Your task to perform on an android device: star an email in the gmail app Image 0: 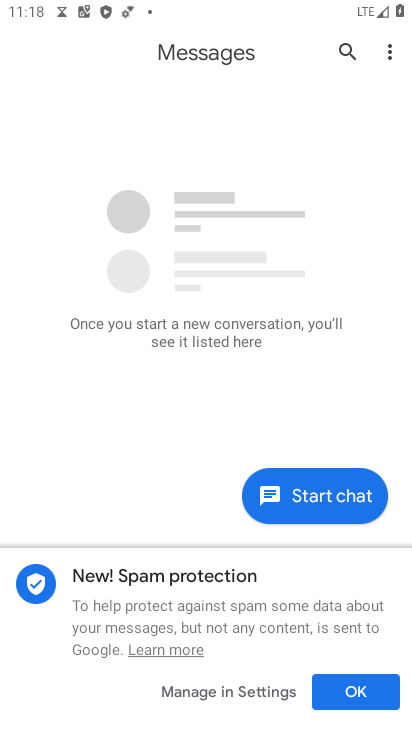
Step 0: press back button
Your task to perform on an android device: star an email in the gmail app Image 1: 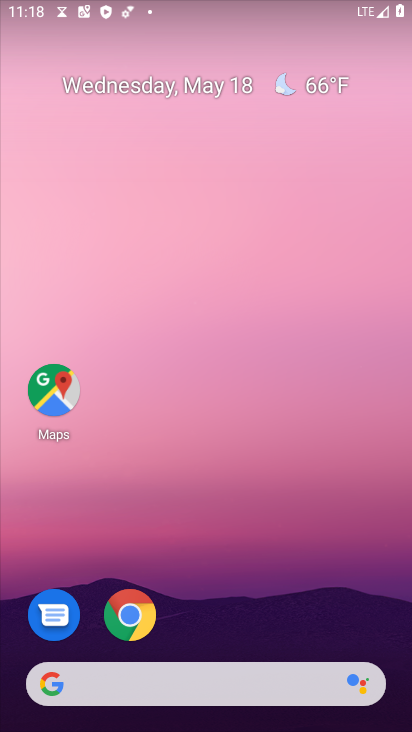
Step 1: drag from (266, 535) to (181, 4)
Your task to perform on an android device: star an email in the gmail app Image 2: 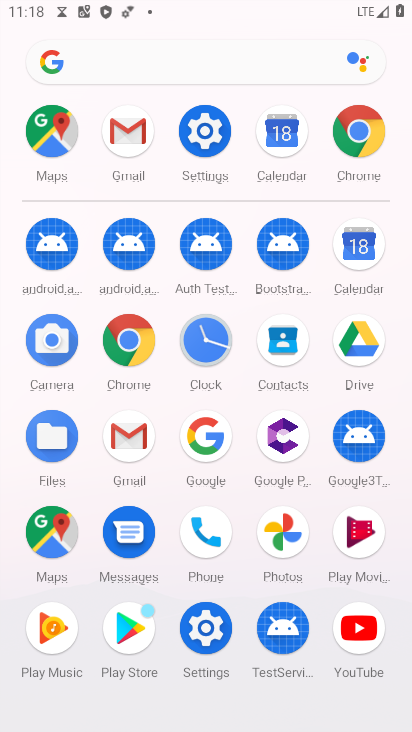
Step 2: drag from (0, 528) to (0, 233)
Your task to perform on an android device: star an email in the gmail app Image 3: 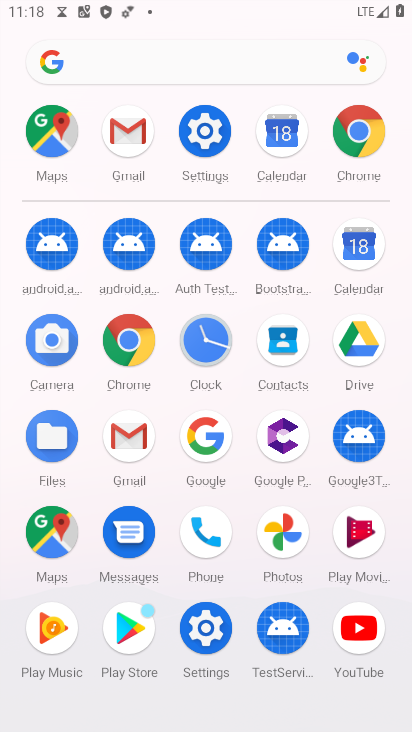
Step 3: click (124, 434)
Your task to perform on an android device: star an email in the gmail app Image 4: 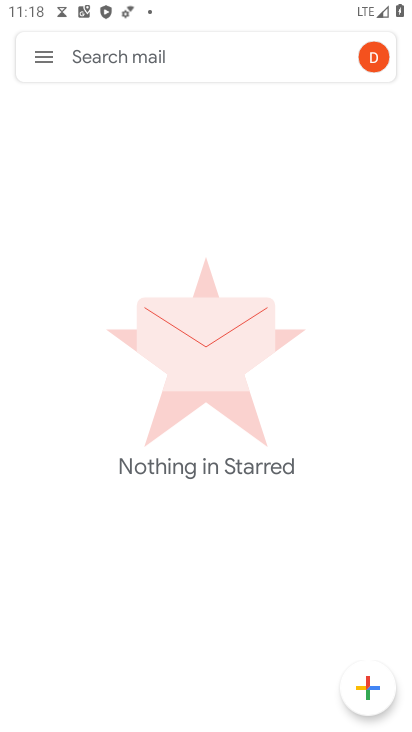
Step 4: click (30, 43)
Your task to perform on an android device: star an email in the gmail app Image 5: 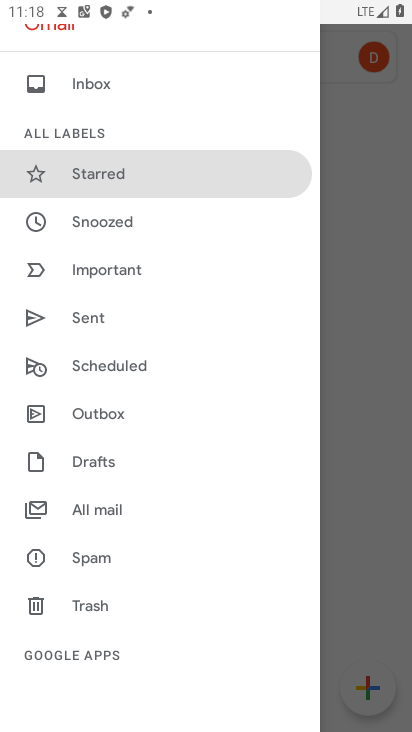
Step 5: click (157, 172)
Your task to perform on an android device: star an email in the gmail app Image 6: 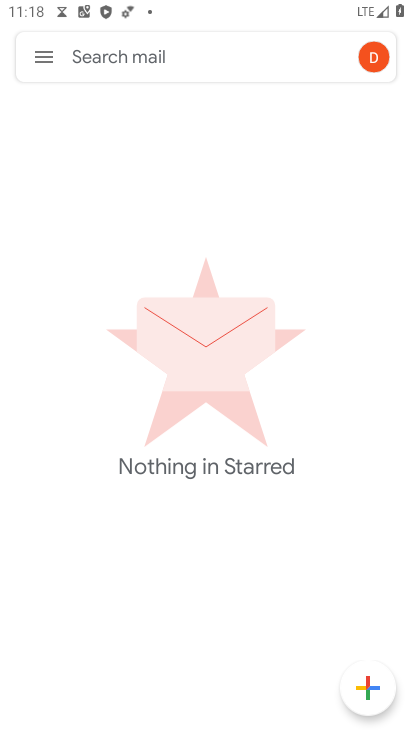
Step 6: click (40, 54)
Your task to perform on an android device: star an email in the gmail app Image 7: 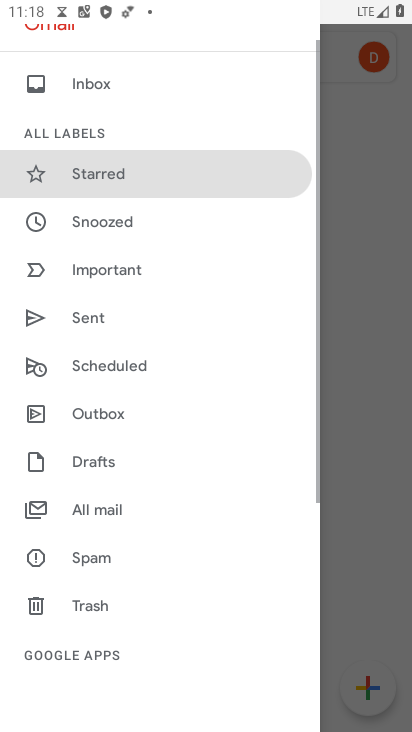
Step 7: click (135, 502)
Your task to perform on an android device: star an email in the gmail app Image 8: 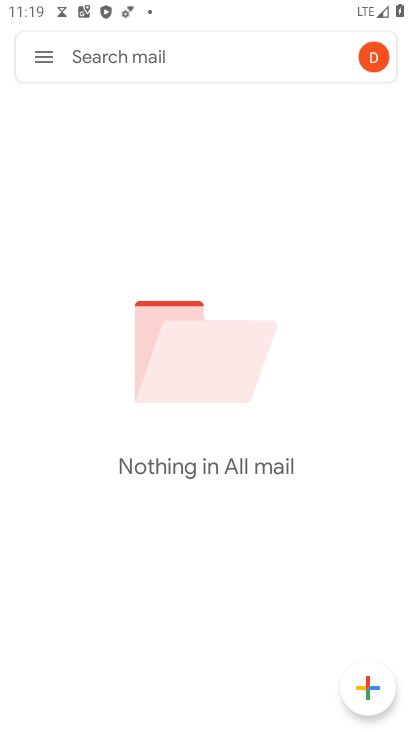
Step 8: task complete